Your task to perform on an android device: Open Amazon Image 0: 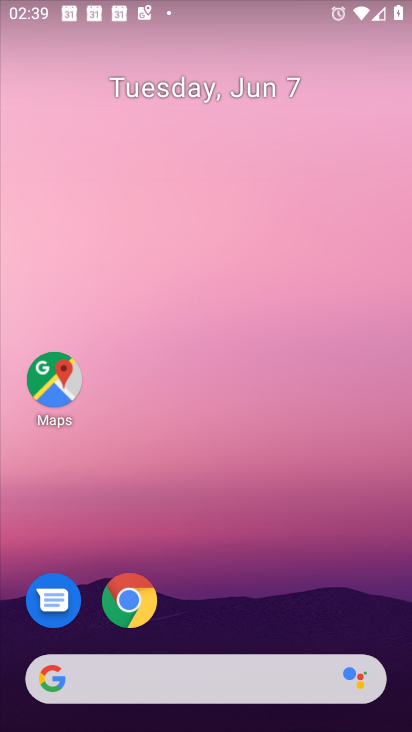
Step 0: click (131, 601)
Your task to perform on an android device: Open Amazon Image 1: 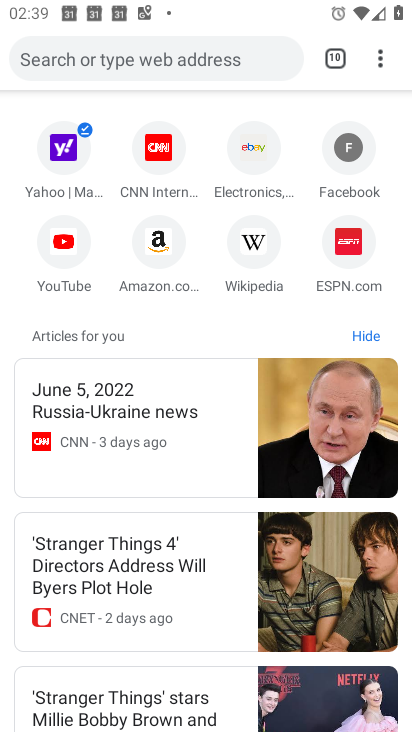
Step 1: click (161, 244)
Your task to perform on an android device: Open Amazon Image 2: 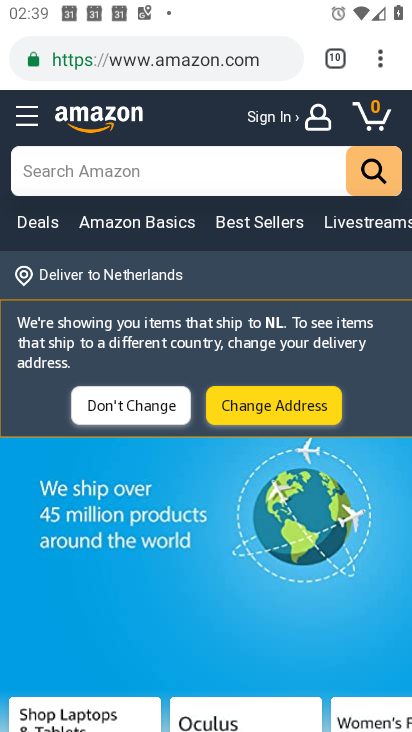
Step 2: task complete